Your task to perform on an android device: all mails in gmail Image 0: 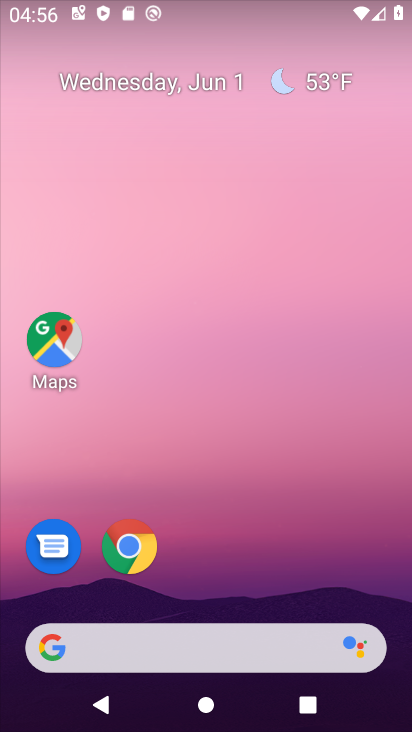
Step 0: drag from (216, 513) to (107, 99)
Your task to perform on an android device: all mails in gmail Image 1: 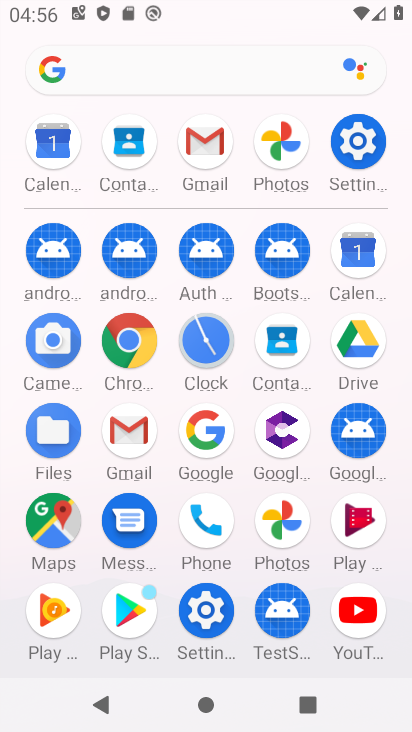
Step 1: click (131, 427)
Your task to perform on an android device: all mails in gmail Image 2: 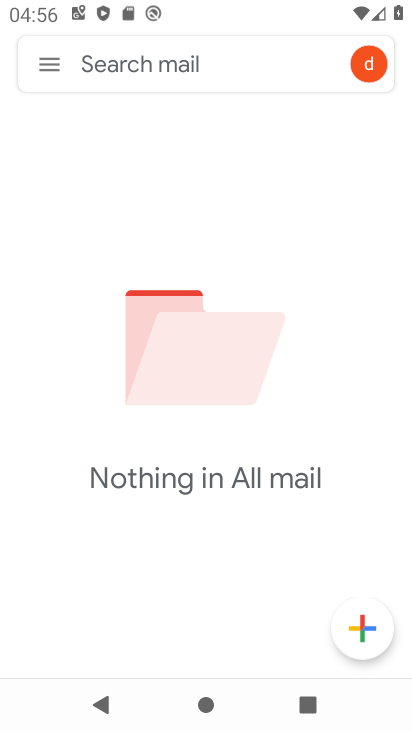
Step 2: task complete